Your task to perform on an android device: change timer sound Image 0: 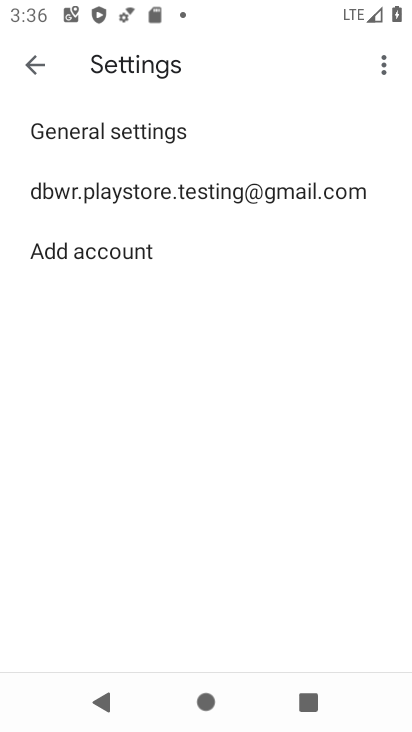
Step 0: press home button
Your task to perform on an android device: change timer sound Image 1: 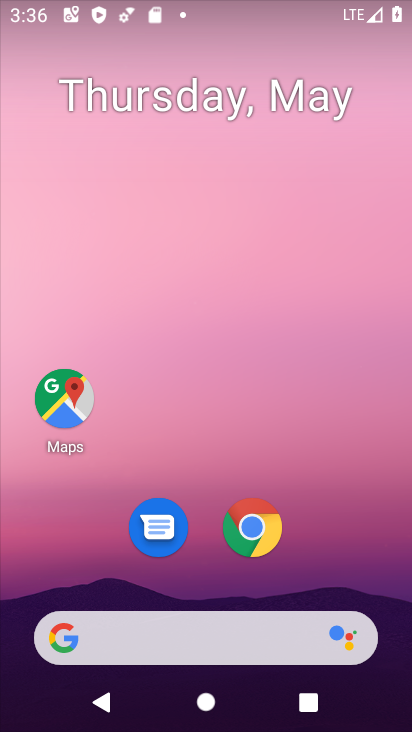
Step 1: drag from (388, 584) to (314, 117)
Your task to perform on an android device: change timer sound Image 2: 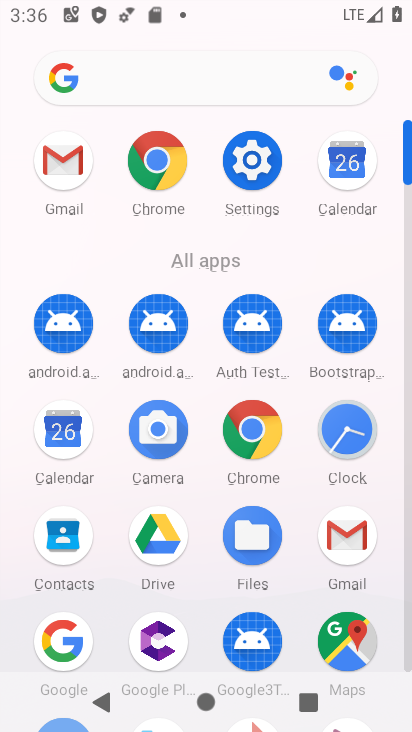
Step 2: click (407, 621)
Your task to perform on an android device: change timer sound Image 3: 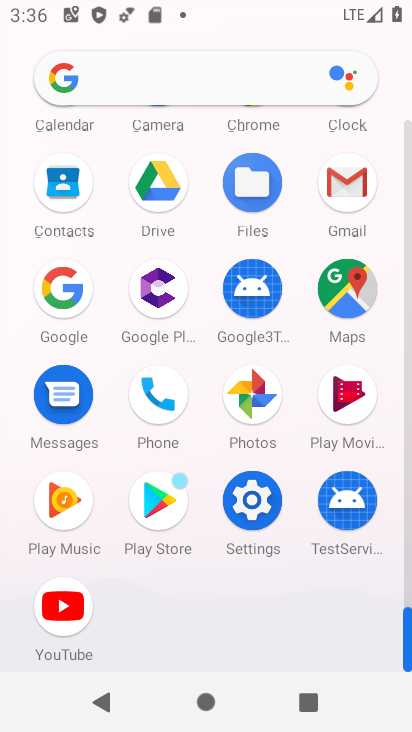
Step 3: click (408, 228)
Your task to perform on an android device: change timer sound Image 4: 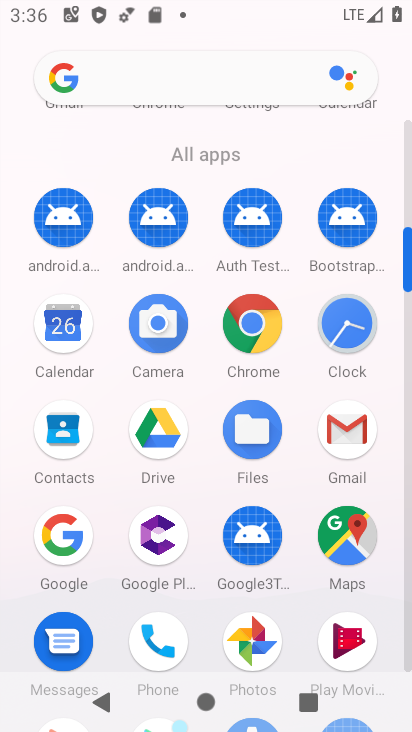
Step 4: click (345, 321)
Your task to perform on an android device: change timer sound Image 5: 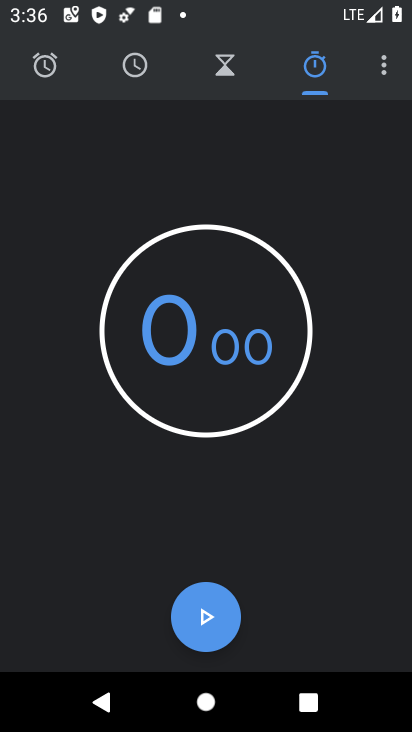
Step 5: click (383, 73)
Your task to perform on an android device: change timer sound Image 6: 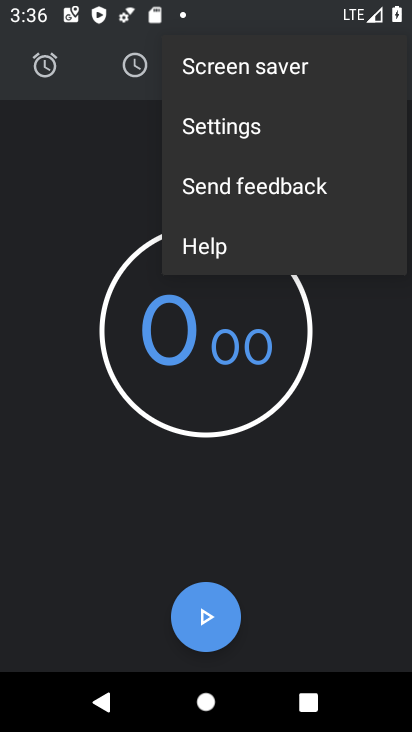
Step 6: click (244, 119)
Your task to perform on an android device: change timer sound Image 7: 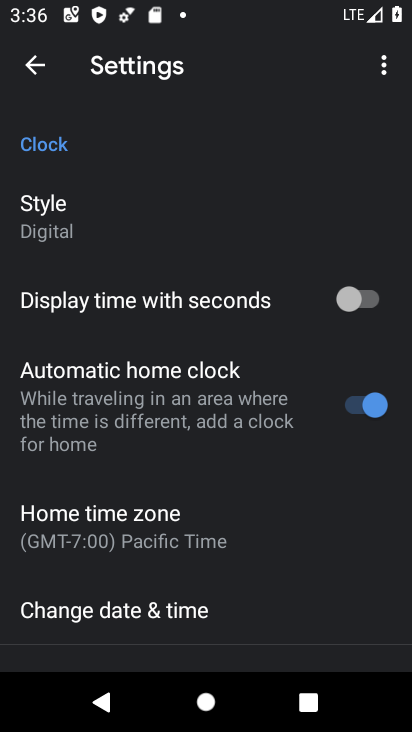
Step 7: drag from (260, 520) to (238, 183)
Your task to perform on an android device: change timer sound Image 8: 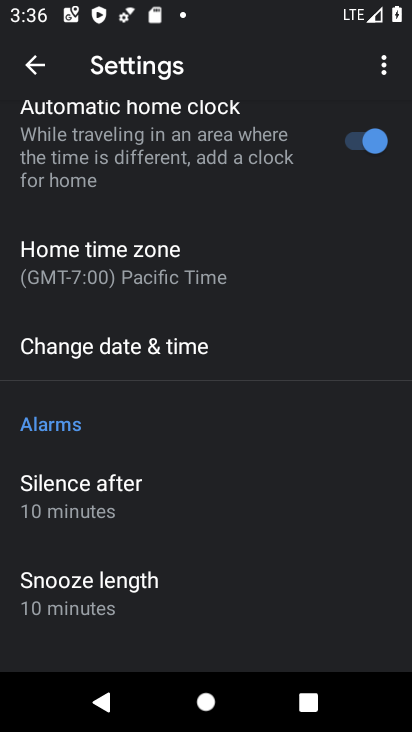
Step 8: drag from (201, 540) to (217, 120)
Your task to perform on an android device: change timer sound Image 9: 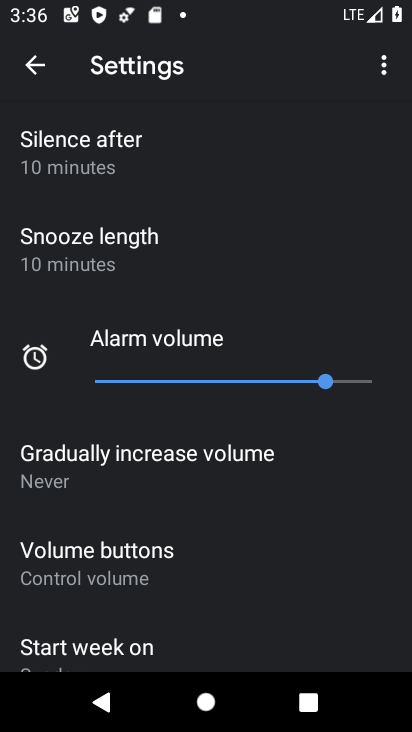
Step 9: drag from (195, 558) to (184, 79)
Your task to perform on an android device: change timer sound Image 10: 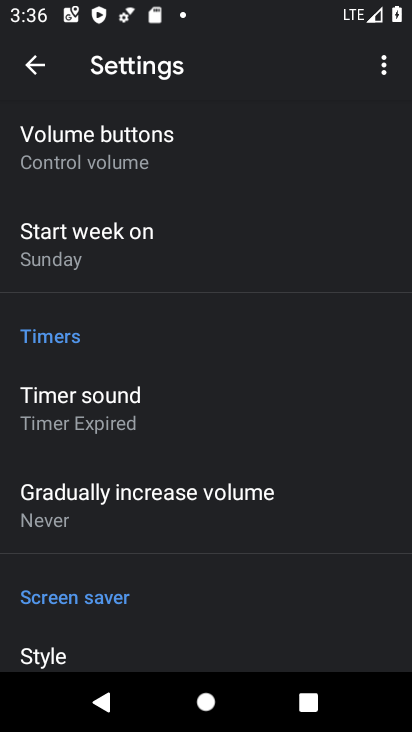
Step 10: click (101, 396)
Your task to perform on an android device: change timer sound Image 11: 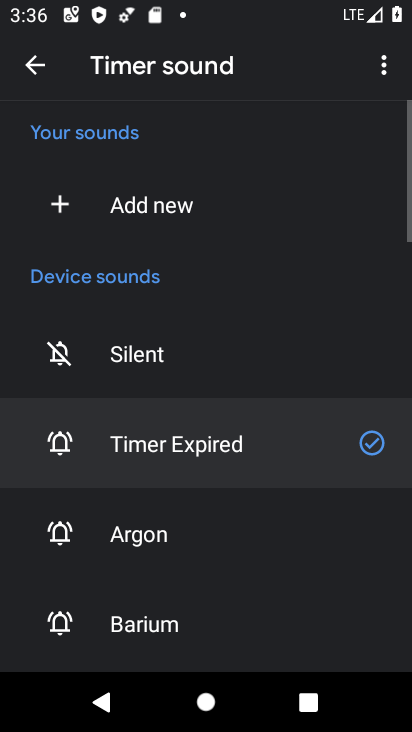
Step 11: drag from (228, 501) to (205, 87)
Your task to perform on an android device: change timer sound Image 12: 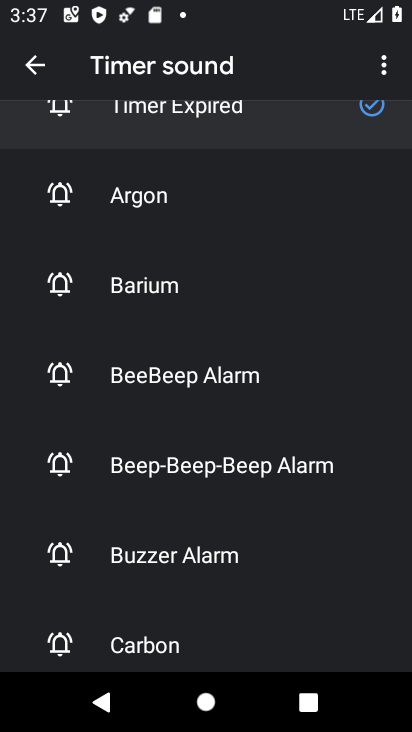
Step 12: click (192, 455)
Your task to perform on an android device: change timer sound Image 13: 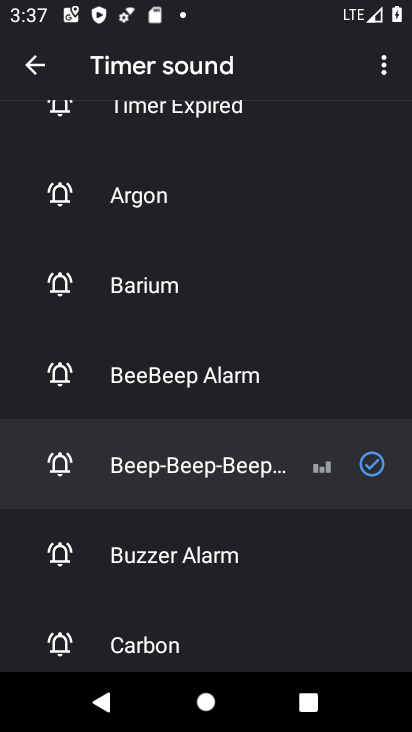
Step 13: task complete